Your task to perform on an android device: empty trash in the gmail app Image 0: 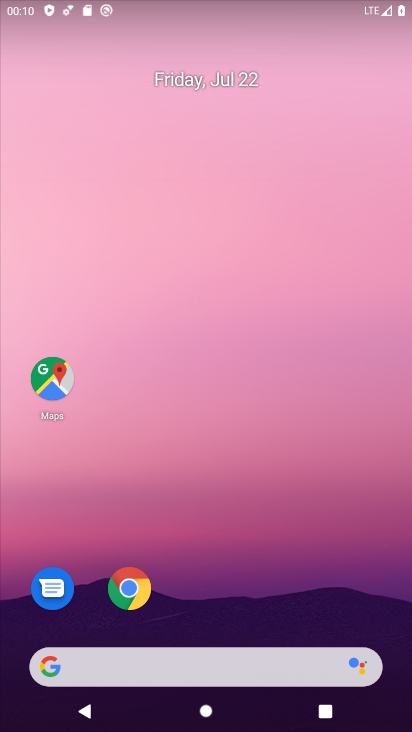
Step 0: drag from (201, 619) to (332, 0)
Your task to perform on an android device: empty trash in the gmail app Image 1: 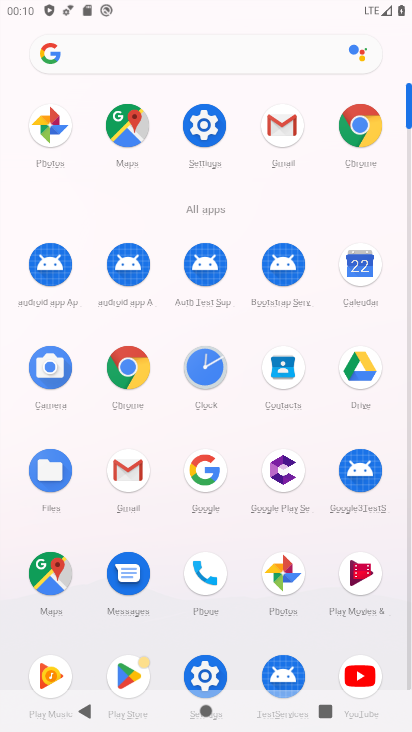
Step 1: click (283, 139)
Your task to perform on an android device: empty trash in the gmail app Image 2: 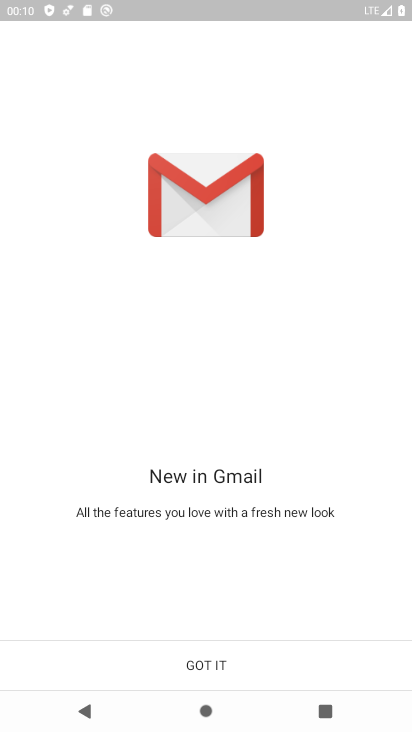
Step 2: click (189, 662)
Your task to perform on an android device: empty trash in the gmail app Image 3: 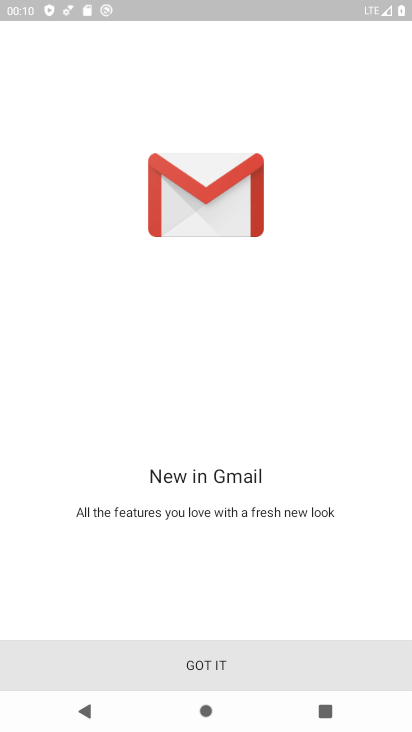
Step 3: click (195, 658)
Your task to perform on an android device: empty trash in the gmail app Image 4: 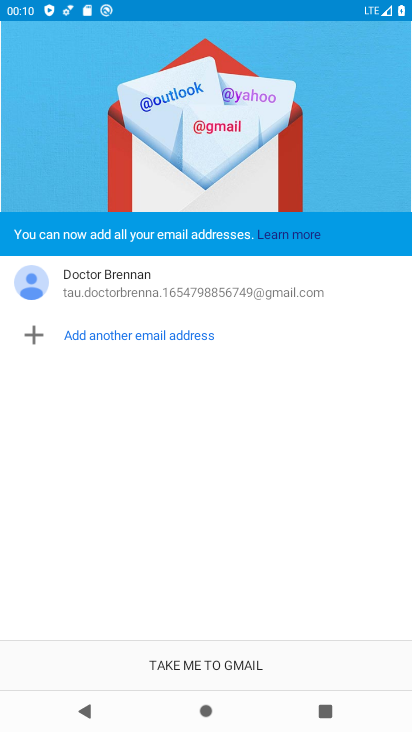
Step 4: click (195, 669)
Your task to perform on an android device: empty trash in the gmail app Image 5: 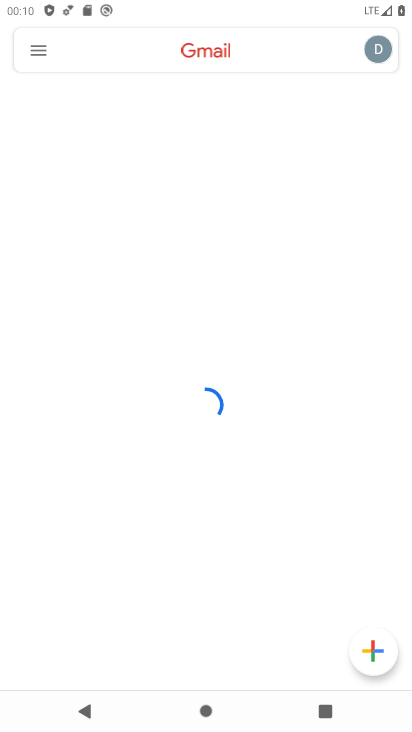
Step 5: click (39, 48)
Your task to perform on an android device: empty trash in the gmail app Image 6: 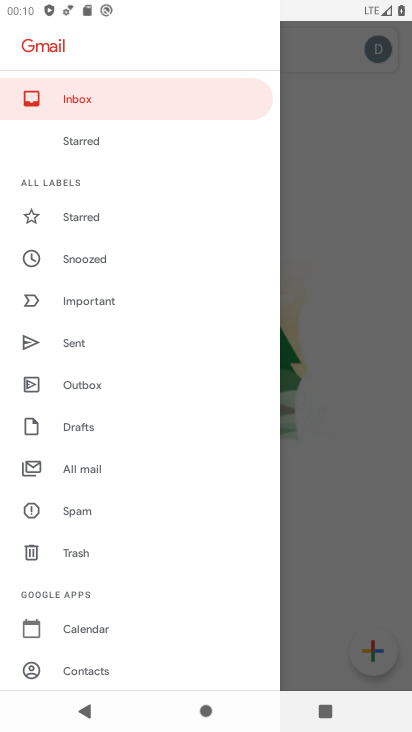
Step 6: click (80, 549)
Your task to perform on an android device: empty trash in the gmail app Image 7: 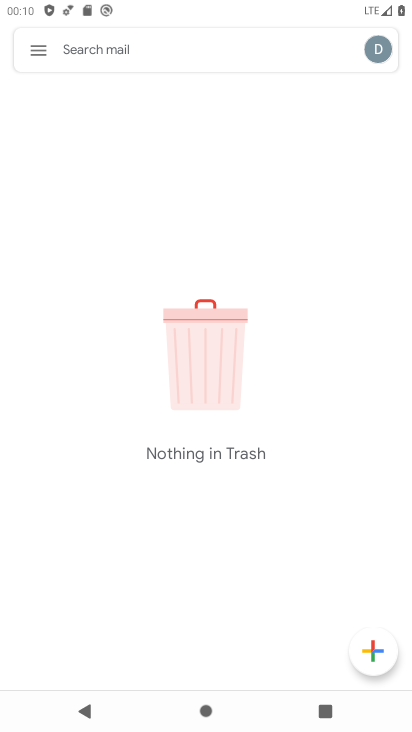
Step 7: task complete